Your task to perform on an android device: What is the news today? Image 0: 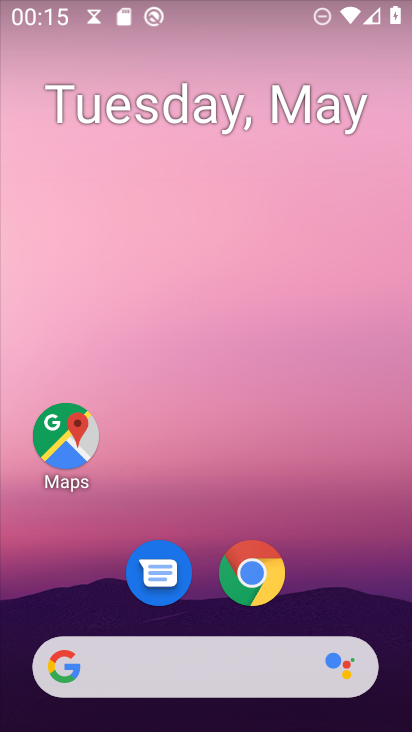
Step 0: click (228, 112)
Your task to perform on an android device: What is the news today? Image 1: 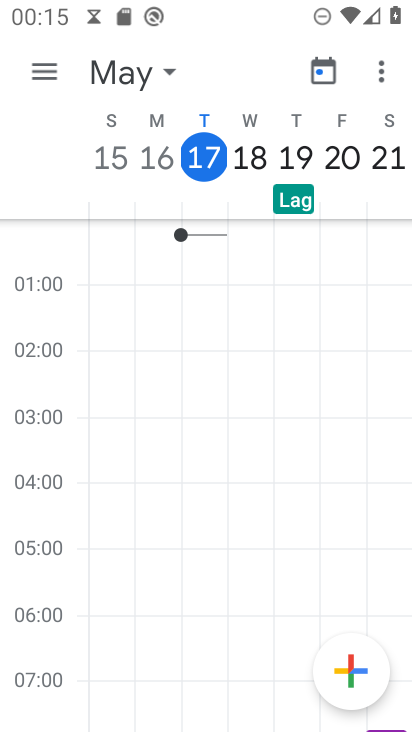
Step 1: press home button
Your task to perform on an android device: What is the news today? Image 2: 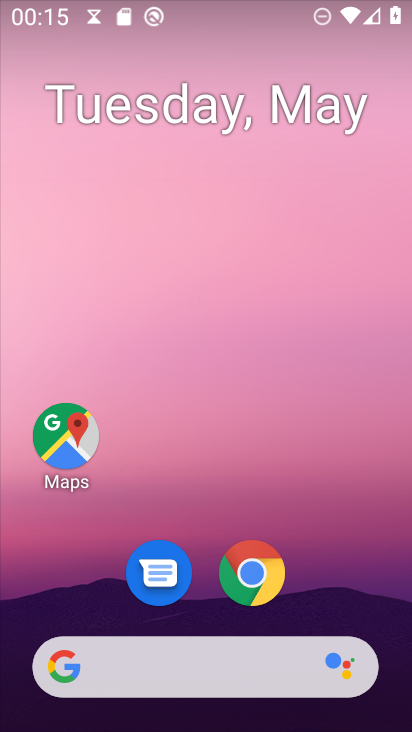
Step 2: drag from (339, 489) to (245, 38)
Your task to perform on an android device: What is the news today? Image 3: 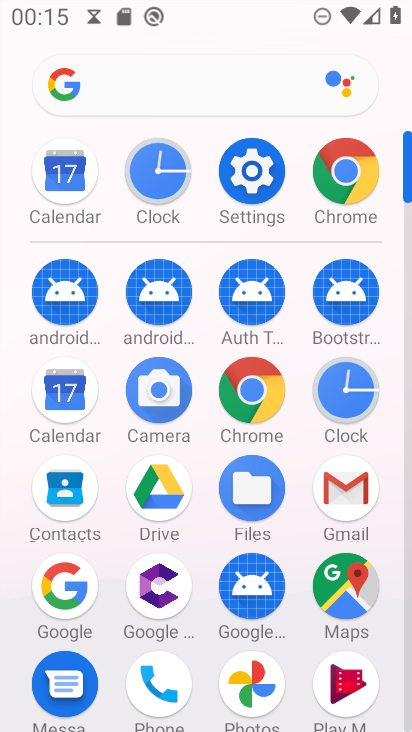
Step 3: click (81, 584)
Your task to perform on an android device: What is the news today? Image 4: 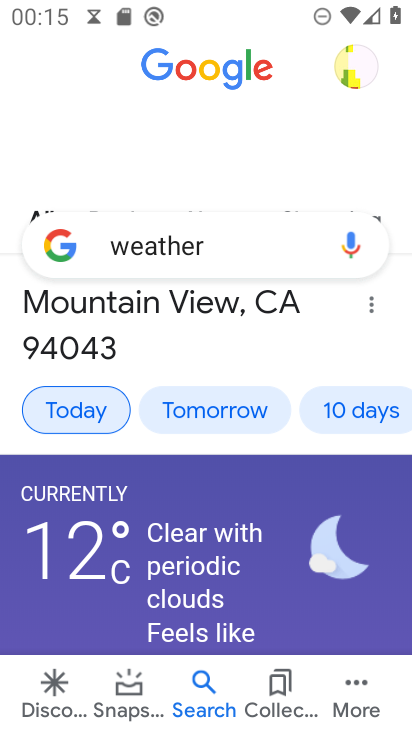
Step 4: click (241, 248)
Your task to perform on an android device: What is the news today? Image 5: 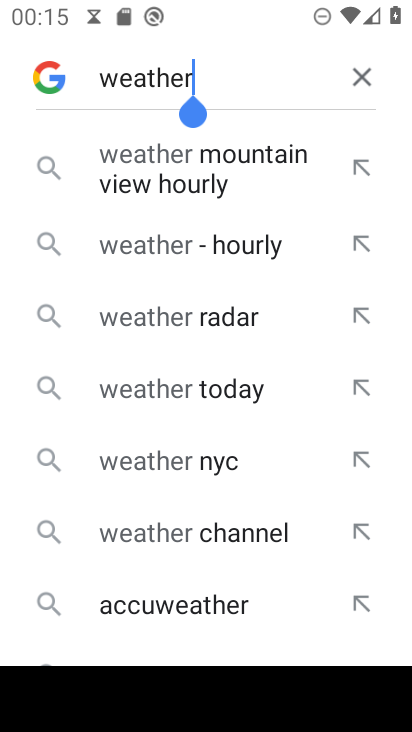
Step 5: click (364, 73)
Your task to perform on an android device: What is the news today? Image 6: 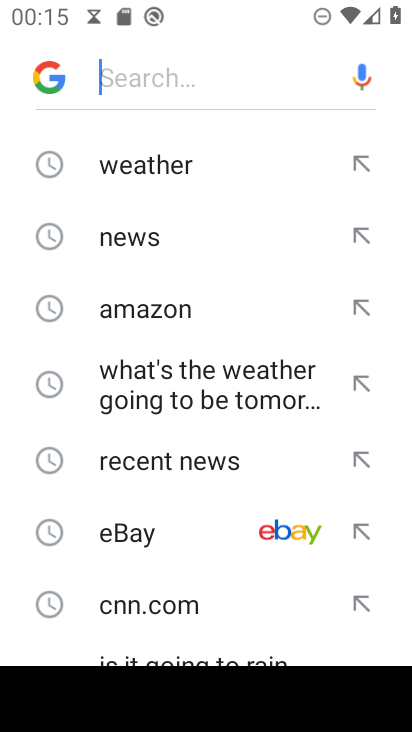
Step 6: click (189, 206)
Your task to perform on an android device: What is the news today? Image 7: 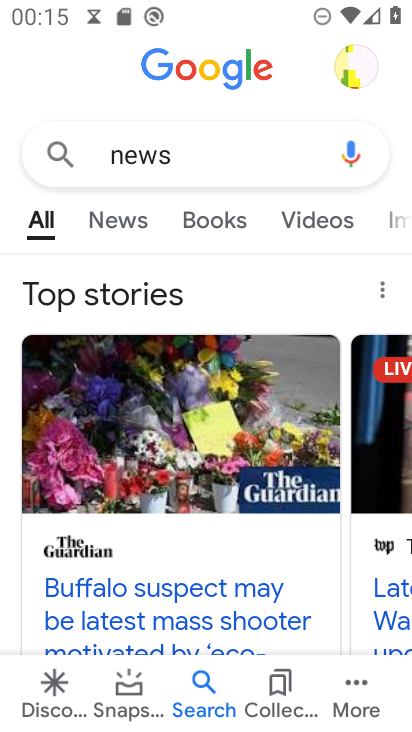
Step 7: task complete